Your task to perform on an android device: change keyboard looks Image 0: 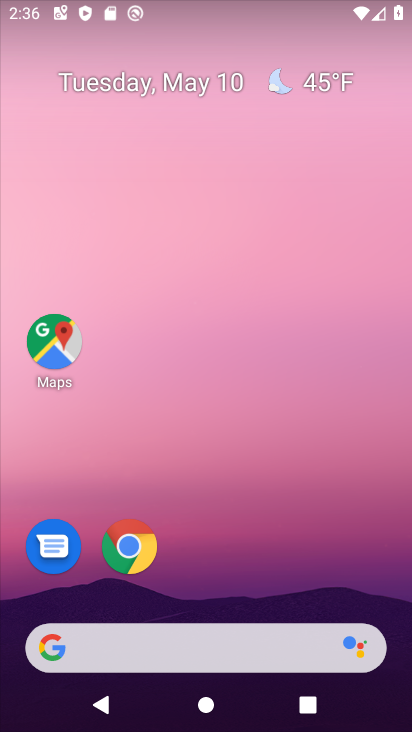
Step 0: drag from (225, 550) to (177, 40)
Your task to perform on an android device: change keyboard looks Image 1: 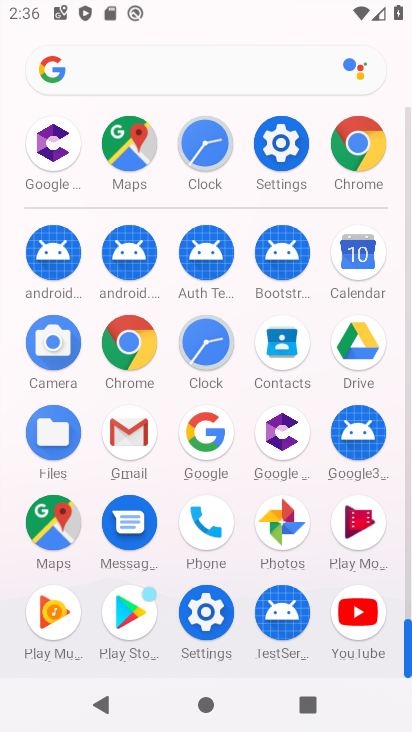
Step 1: click (202, 604)
Your task to perform on an android device: change keyboard looks Image 2: 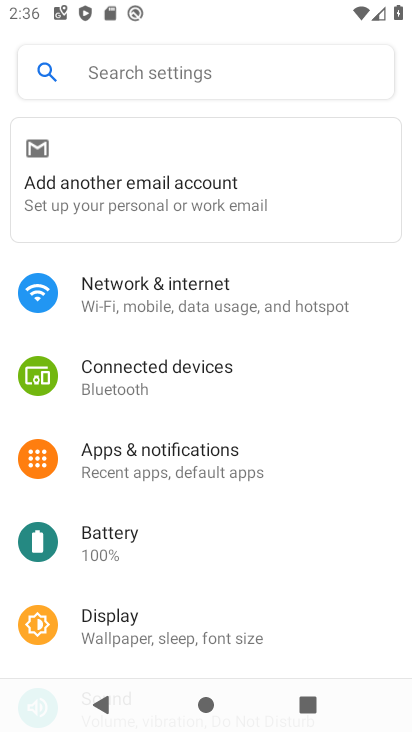
Step 2: click (218, 297)
Your task to perform on an android device: change keyboard looks Image 3: 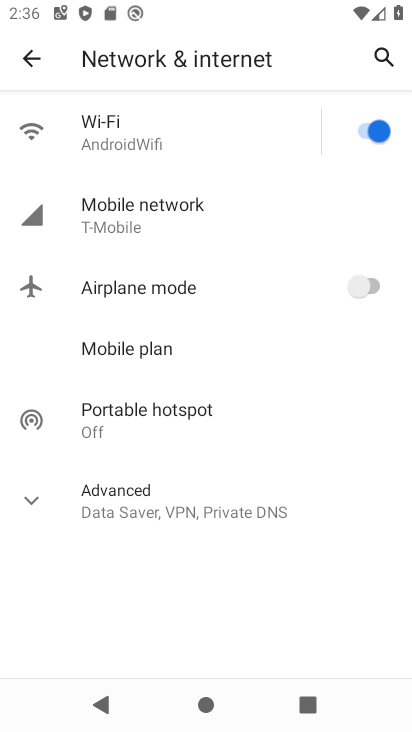
Step 3: click (141, 508)
Your task to perform on an android device: change keyboard looks Image 4: 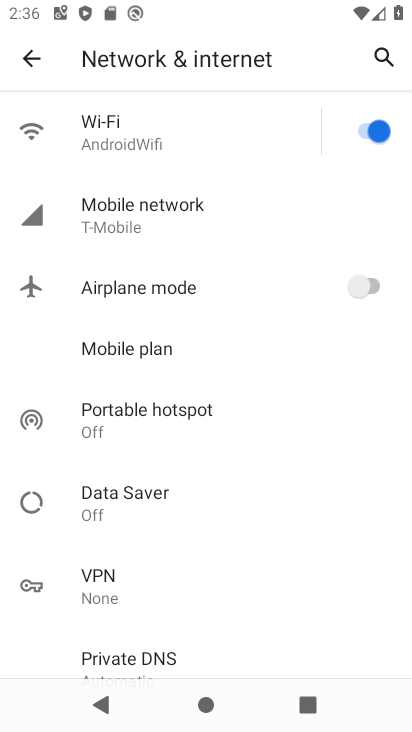
Step 4: drag from (282, 527) to (243, 150)
Your task to perform on an android device: change keyboard looks Image 5: 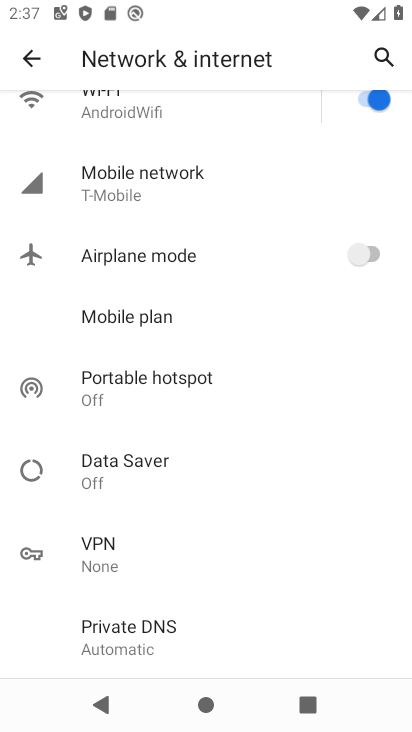
Step 5: drag from (211, 176) to (189, 490)
Your task to perform on an android device: change keyboard looks Image 6: 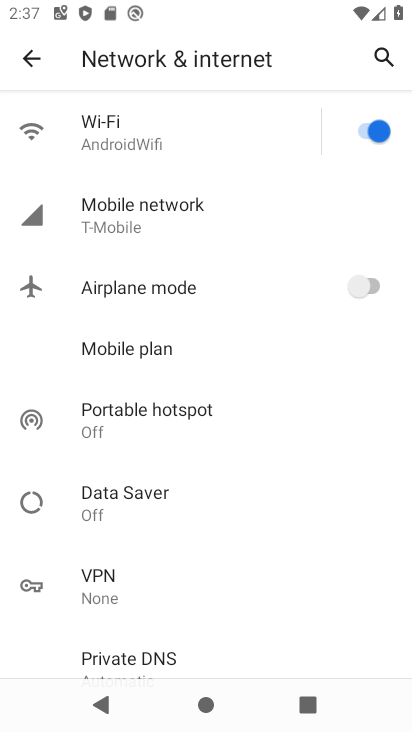
Step 6: click (30, 63)
Your task to perform on an android device: change keyboard looks Image 7: 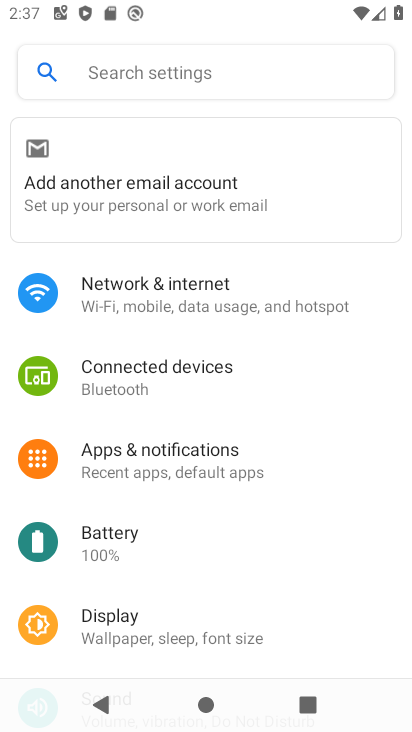
Step 7: drag from (229, 583) to (236, 143)
Your task to perform on an android device: change keyboard looks Image 8: 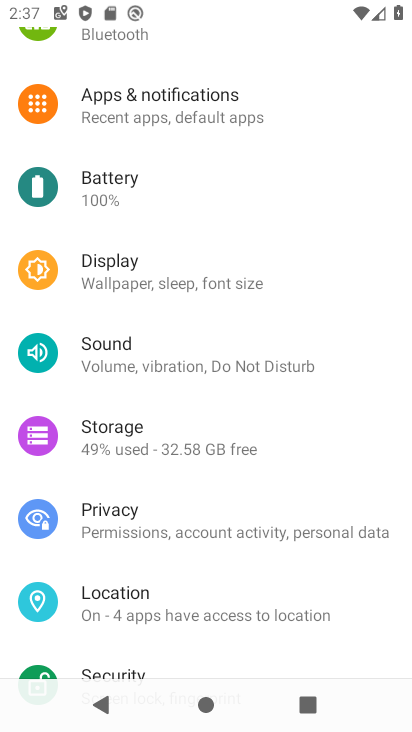
Step 8: drag from (276, 625) to (273, 159)
Your task to perform on an android device: change keyboard looks Image 9: 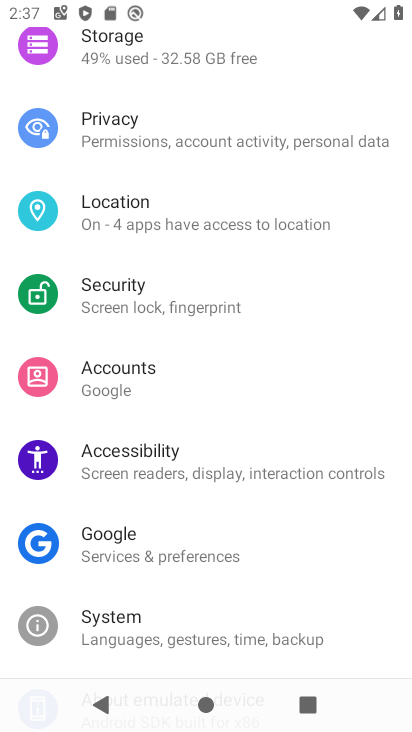
Step 9: drag from (234, 586) to (267, 164)
Your task to perform on an android device: change keyboard looks Image 10: 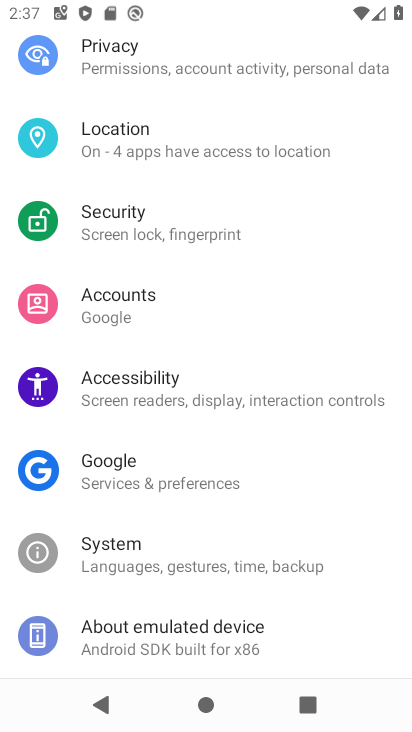
Step 10: click (142, 553)
Your task to perform on an android device: change keyboard looks Image 11: 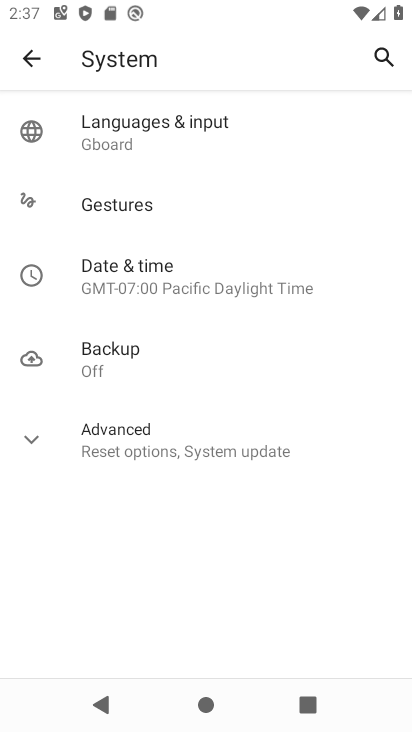
Step 11: click (214, 121)
Your task to perform on an android device: change keyboard looks Image 12: 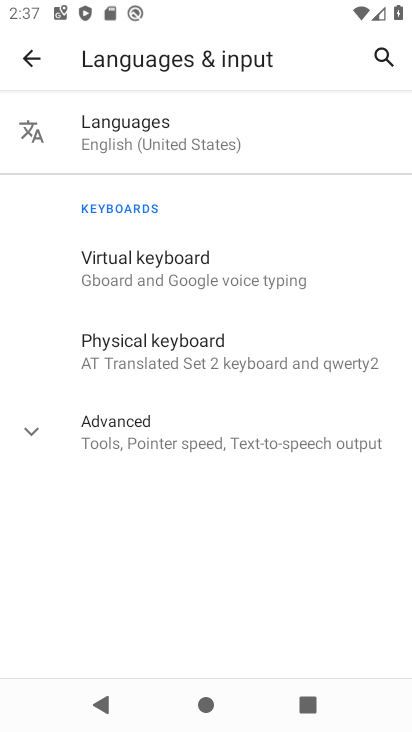
Step 12: click (50, 434)
Your task to perform on an android device: change keyboard looks Image 13: 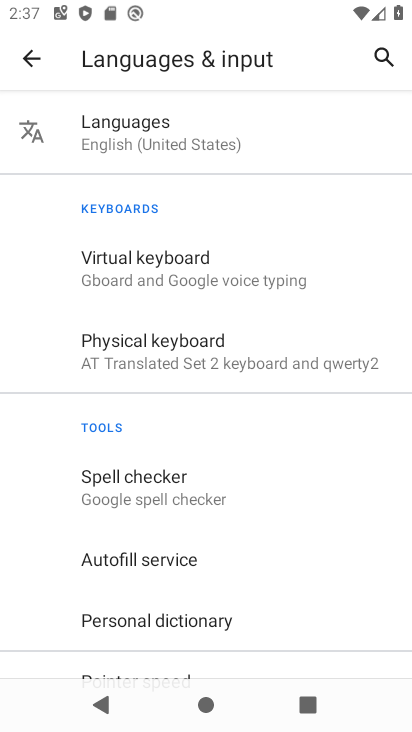
Step 13: drag from (312, 530) to (348, 165)
Your task to perform on an android device: change keyboard looks Image 14: 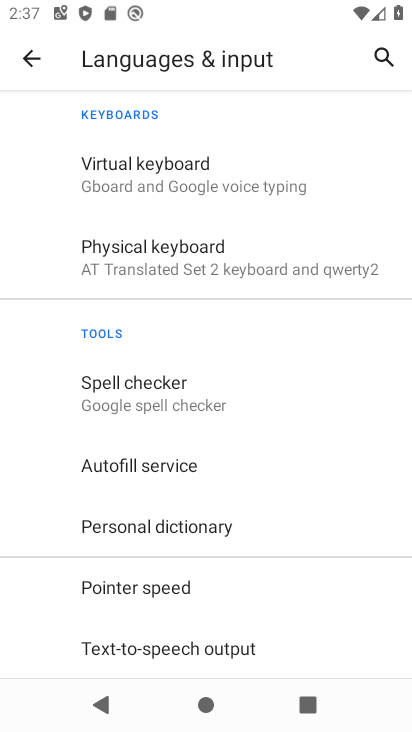
Step 14: drag from (321, 179) to (281, 475)
Your task to perform on an android device: change keyboard looks Image 15: 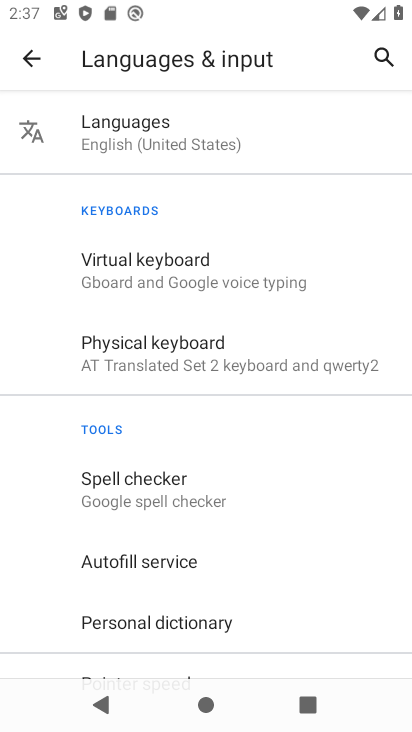
Step 15: drag from (276, 552) to (274, 87)
Your task to perform on an android device: change keyboard looks Image 16: 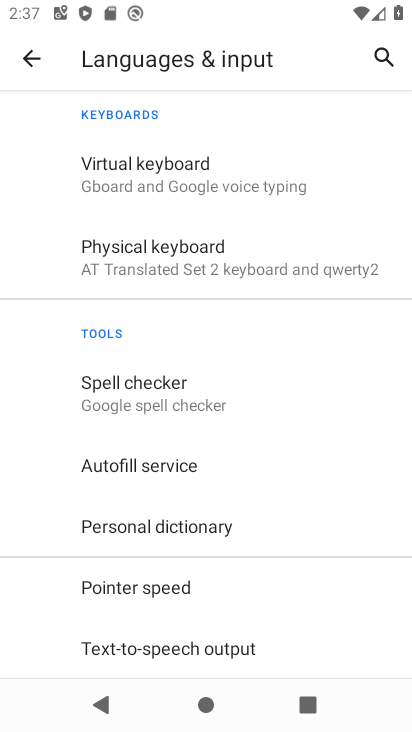
Step 16: drag from (264, 128) to (285, 541)
Your task to perform on an android device: change keyboard looks Image 17: 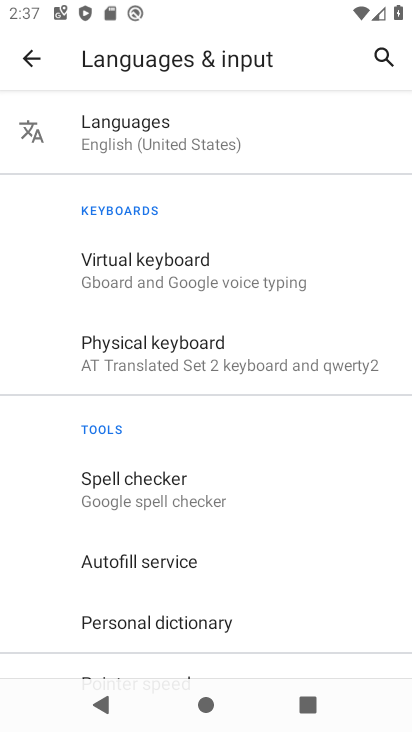
Step 17: click (212, 264)
Your task to perform on an android device: change keyboard looks Image 18: 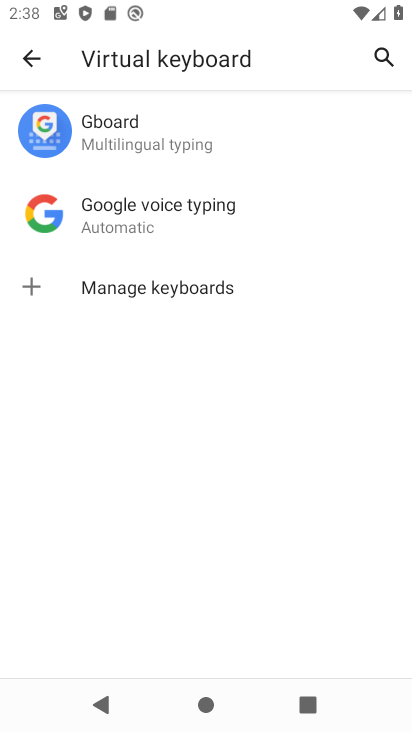
Step 18: click (204, 151)
Your task to perform on an android device: change keyboard looks Image 19: 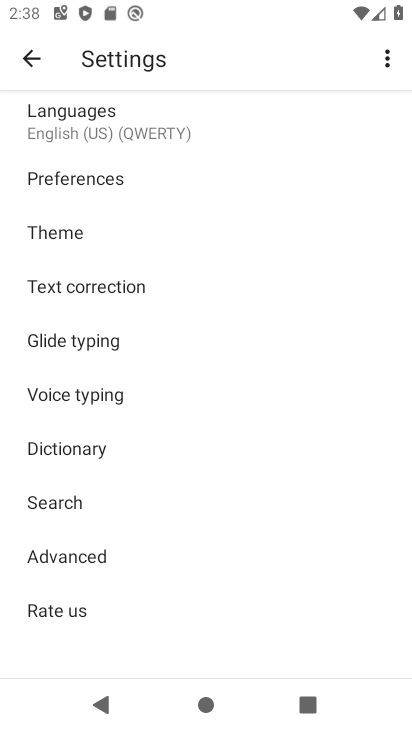
Step 19: click (83, 233)
Your task to perform on an android device: change keyboard looks Image 20: 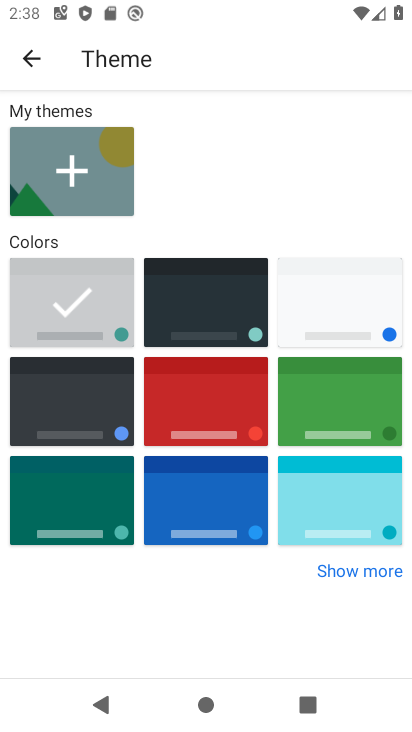
Step 20: click (209, 516)
Your task to perform on an android device: change keyboard looks Image 21: 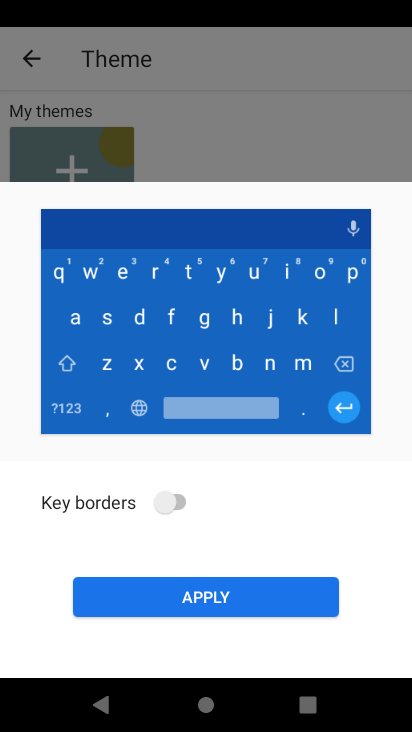
Step 21: click (244, 599)
Your task to perform on an android device: change keyboard looks Image 22: 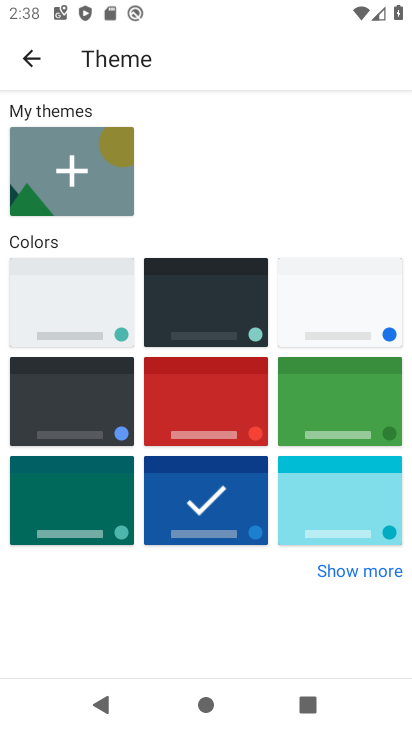
Step 22: task complete